Your task to perform on an android device: turn off location history Image 0: 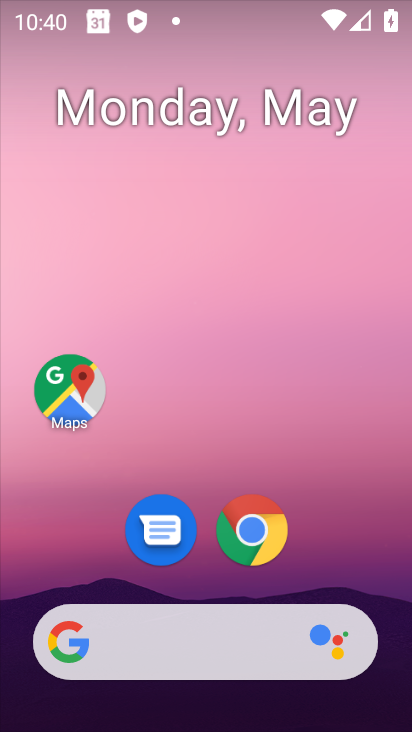
Step 0: drag from (327, 555) to (238, 64)
Your task to perform on an android device: turn off location history Image 1: 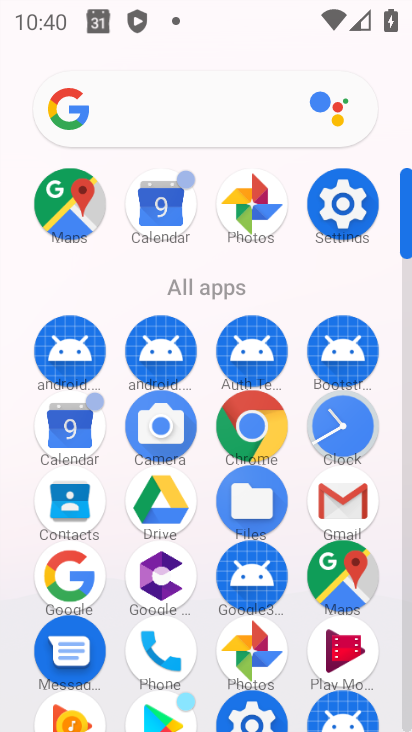
Step 1: click (346, 204)
Your task to perform on an android device: turn off location history Image 2: 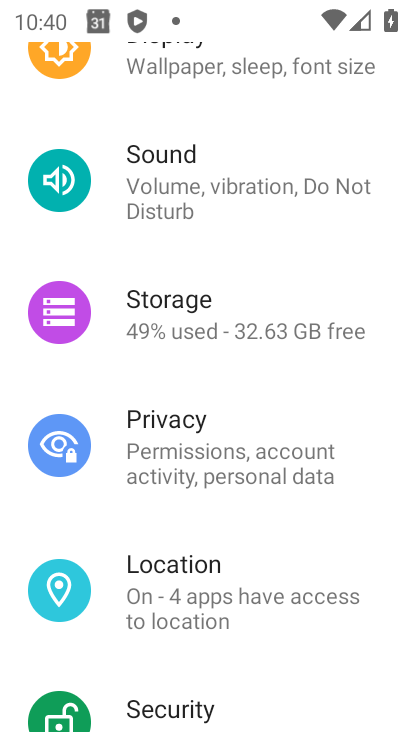
Step 2: drag from (228, 403) to (283, 297)
Your task to perform on an android device: turn off location history Image 3: 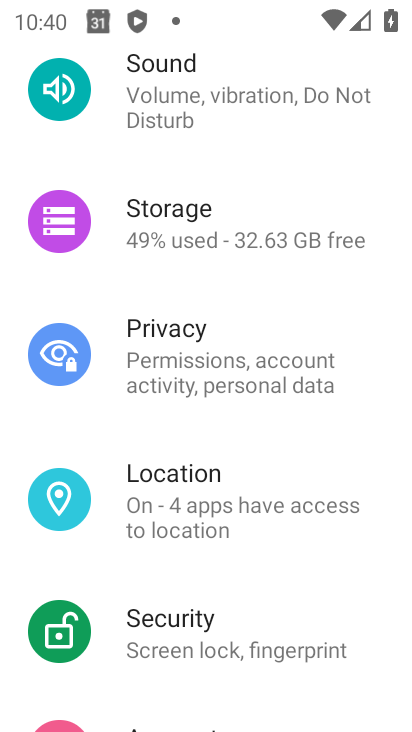
Step 3: click (192, 476)
Your task to perform on an android device: turn off location history Image 4: 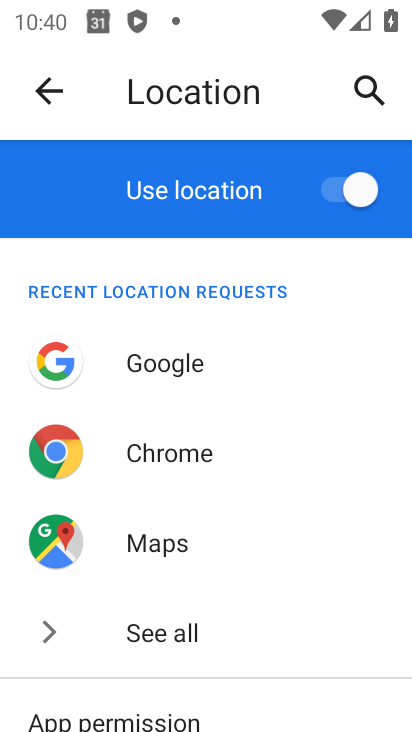
Step 4: drag from (235, 588) to (279, 403)
Your task to perform on an android device: turn off location history Image 5: 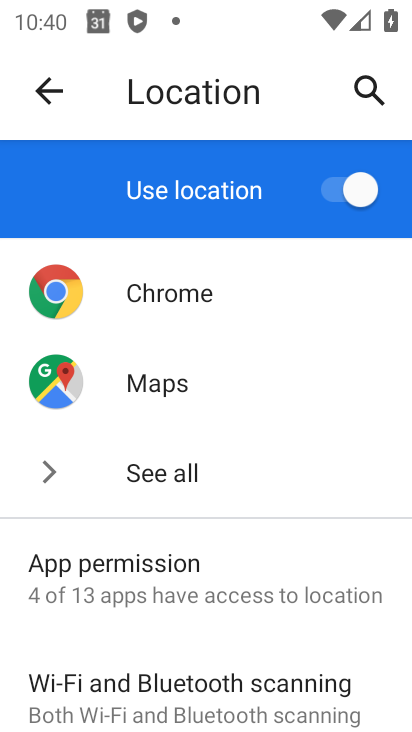
Step 5: drag from (220, 552) to (220, 402)
Your task to perform on an android device: turn off location history Image 6: 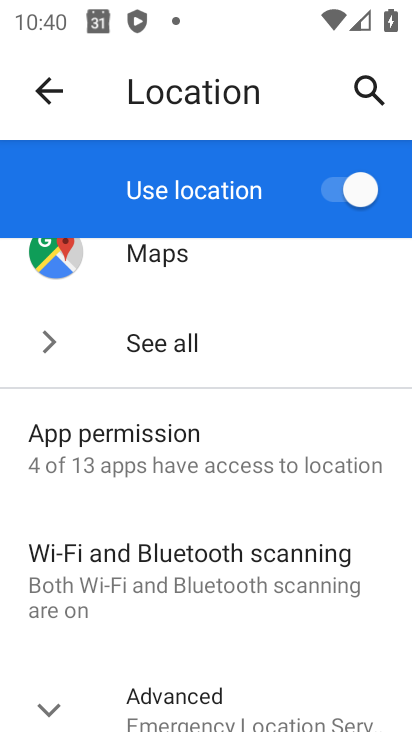
Step 6: drag from (180, 625) to (234, 407)
Your task to perform on an android device: turn off location history Image 7: 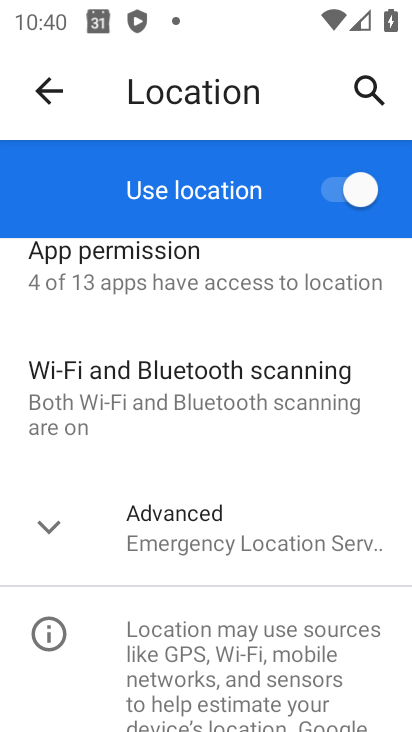
Step 7: click (199, 519)
Your task to perform on an android device: turn off location history Image 8: 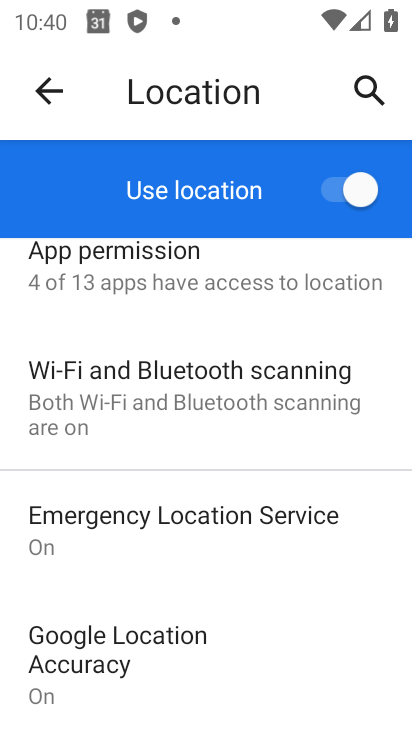
Step 8: drag from (148, 580) to (235, 456)
Your task to perform on an android device: turn off location history Image 9: 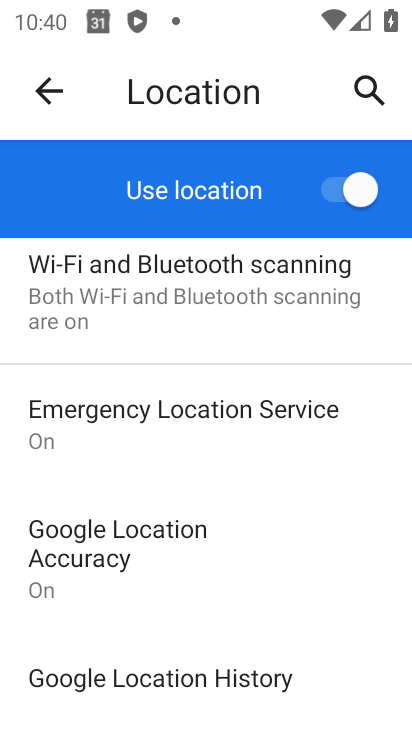
Step 9: drag from (170, 600) to (239, 460)
Your task to perform on an android device: turn off location history Image 10: 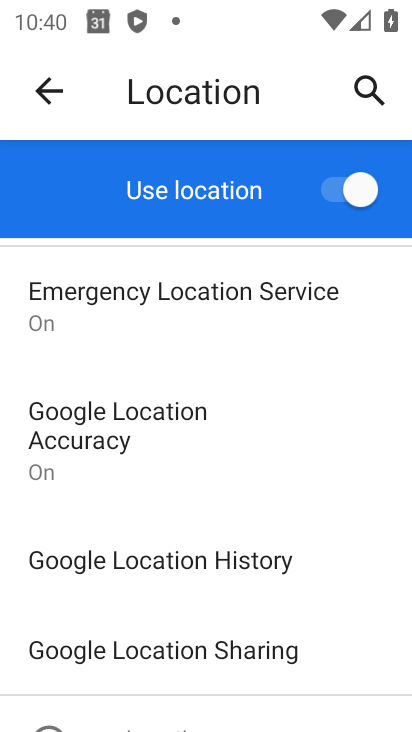
Step 10: click (222, 560)
Your task to perform on an android device: turn off location history Image 11: 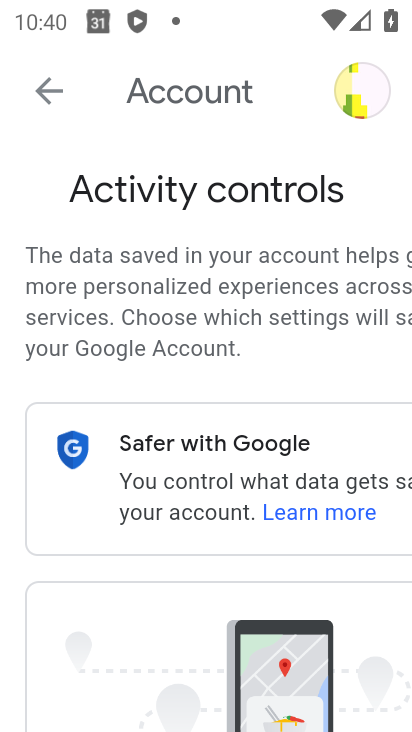
Step 11: drag from (142, 615) to (256, 336)
Your task to perform on an android device: turn off location history Image 12: 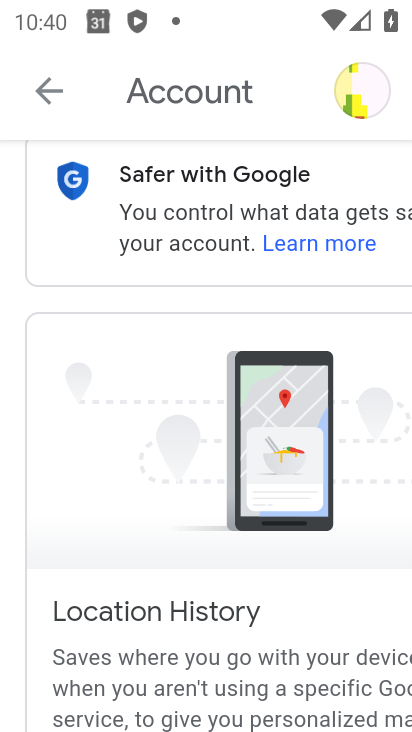
Step 12: drag from (157, 589) to (228, 288)
Your task to perform on an android device: turn off location history Image 13: 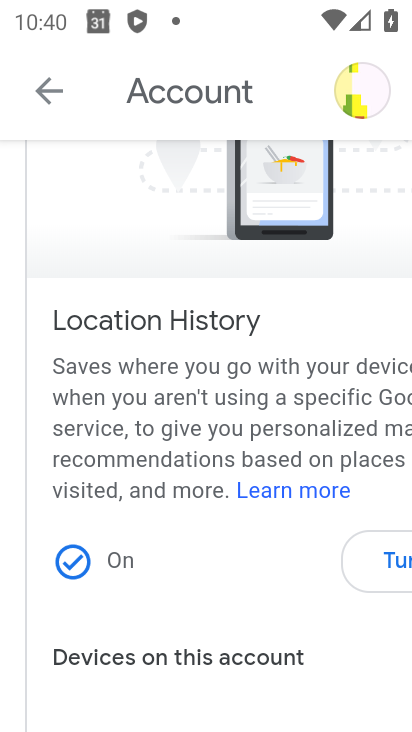
Step 13: click (392, 559)
Your task to perform on an android device: turn off location history Image 14: 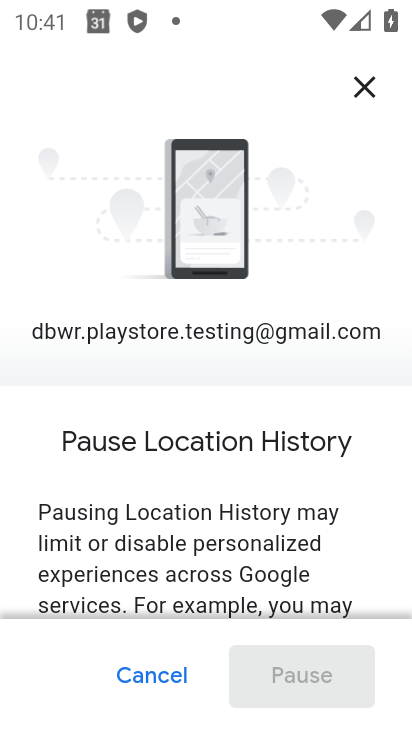
Step 14: drag from (315, 570) to (290, 314)
Your task to perform on an android device: turn off location history Image 15: 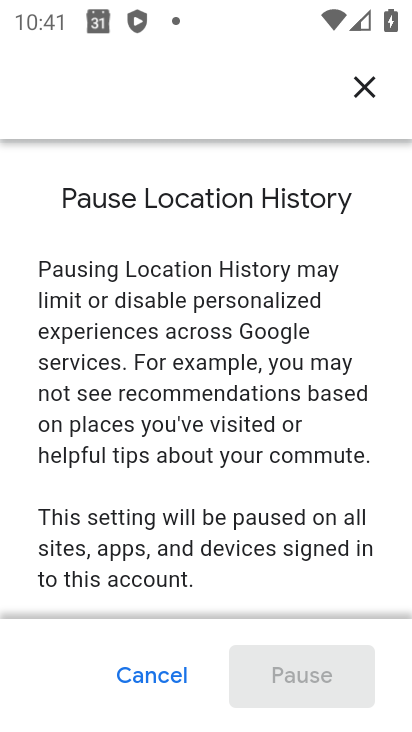
Step 15: drag from (256, 577) to (305, 364)
Your task to perform on an android device: turn off location history Image 16: 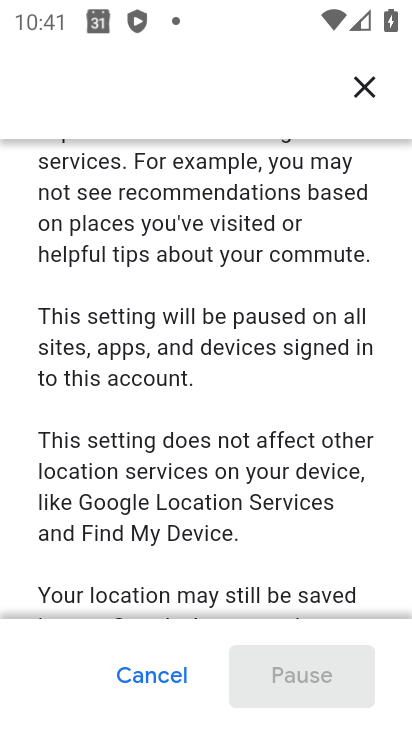
Step 16: drag from (269, 565) to (306, 367)
Your task to perform on an android device: turn off location history Image 17: 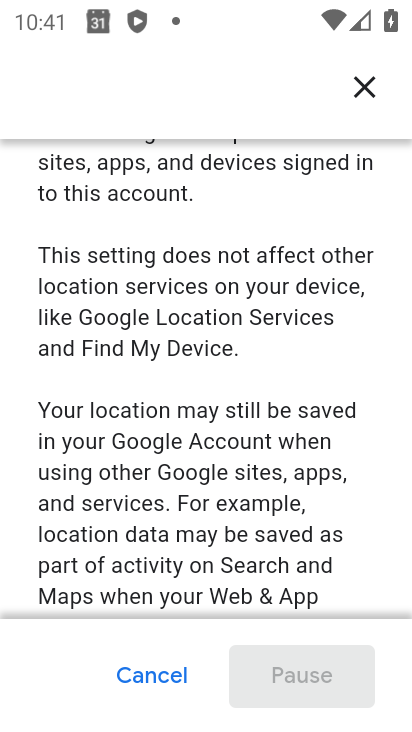
Step 17: drag from (287, 561) to (334, 359)
Your task to perform on an android device: turn off location history Image 18: 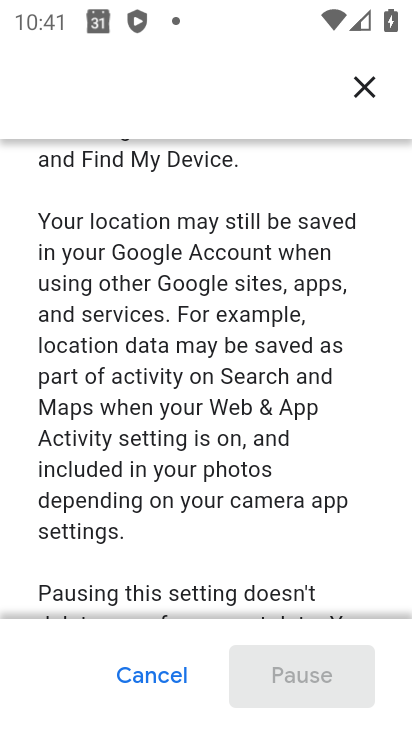
Step 18: drag from (287, 554) to (355, 364)
Your task to perform on an android device: turn off location history Image 19: 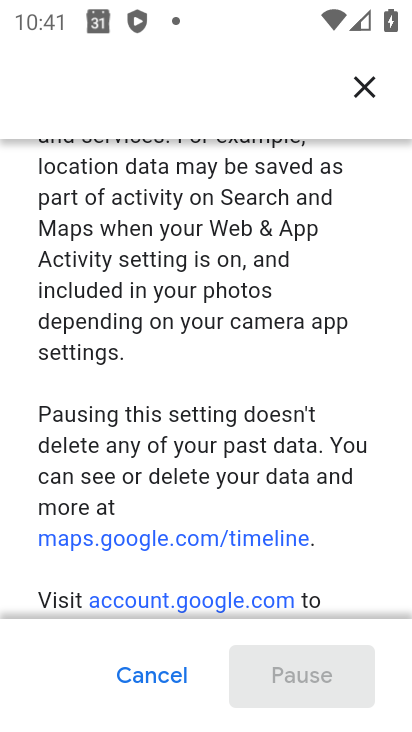
Step 19: drag from (274, 567) to (311, 357)
Your task to perform on an android device: turn off location history Image 20: 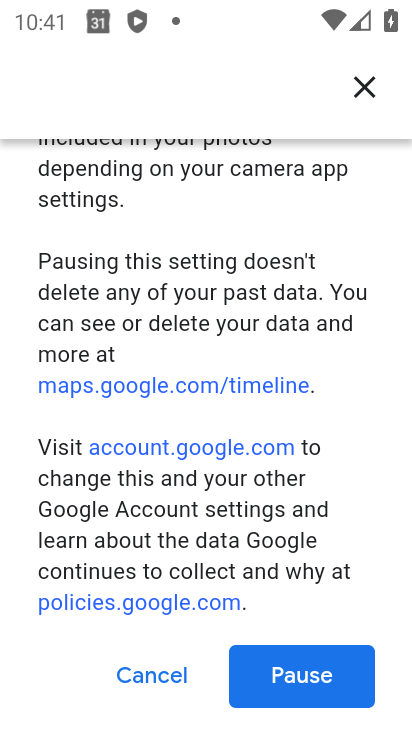
Step 20: click (293, 675)
Your task to perform on an android device: turn off location history Image 21: 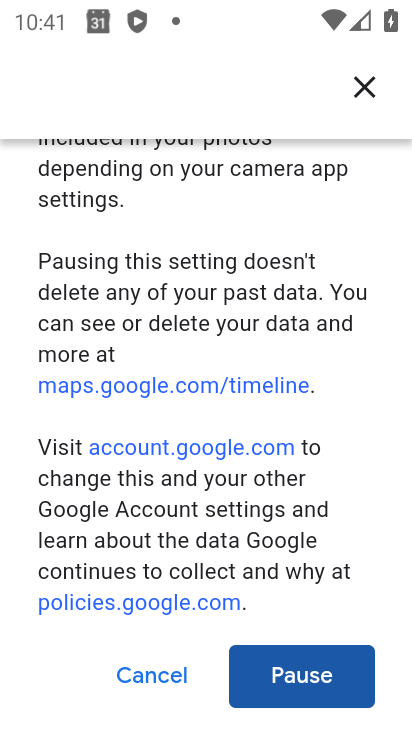
Step 21: click (293, 675)
Your task to perform on an android device: turn off location history Image 22: 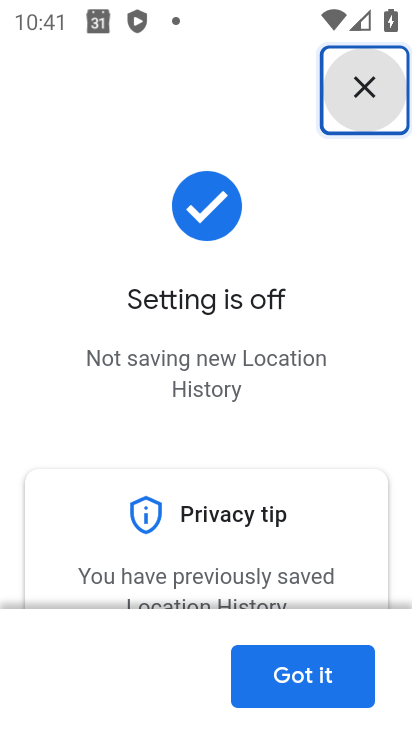
Step 22: click (299, 678)
Your task to perform on an android device: turn off location history Image 23: 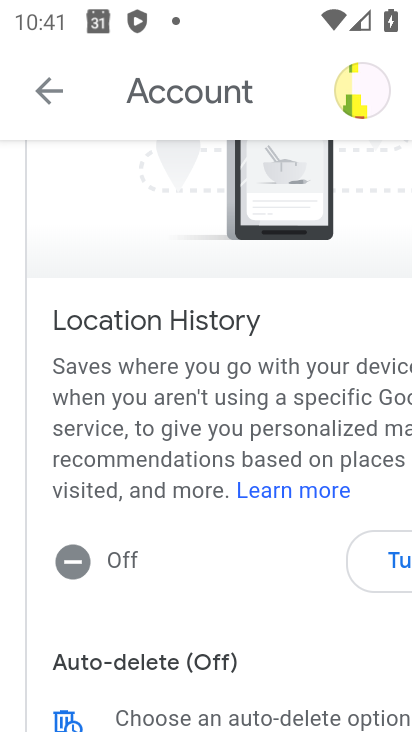
Step 23: task complete